Your task to perform on an android device: turn on location history Image 0: 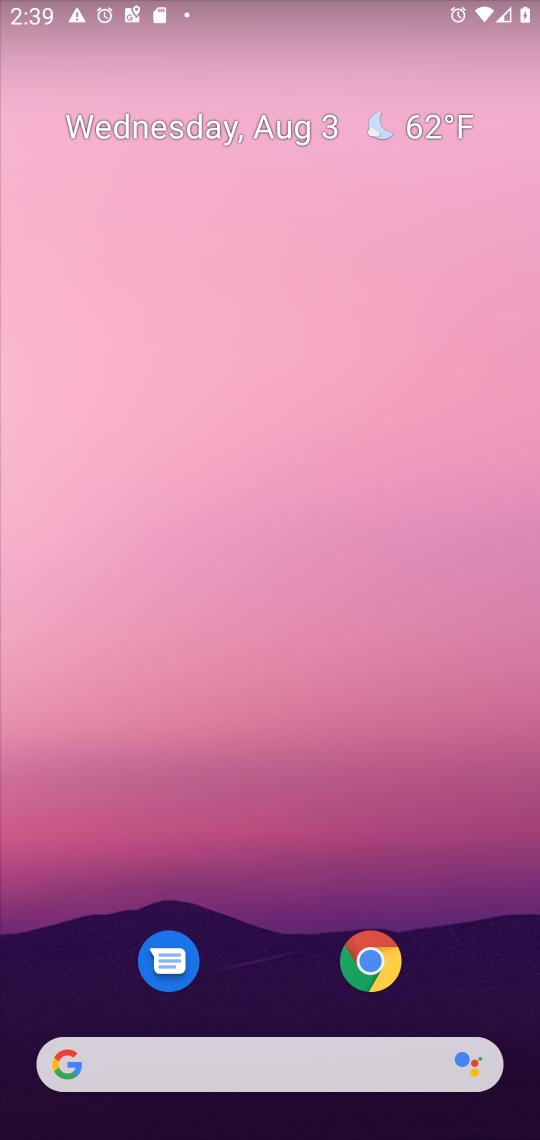
Step 0: drag from (269, 913) to (319, 70)
Your task to perform on an android device: turn on location history Image 1: 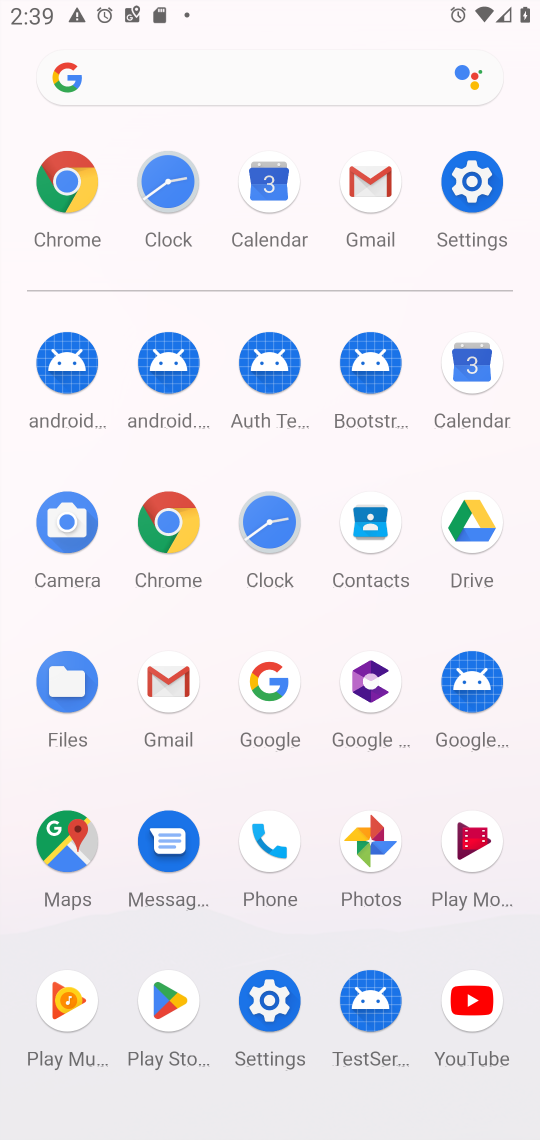
Step 1: click (69, 831)
Your task to perform on an android device: turn on location history Image 2: 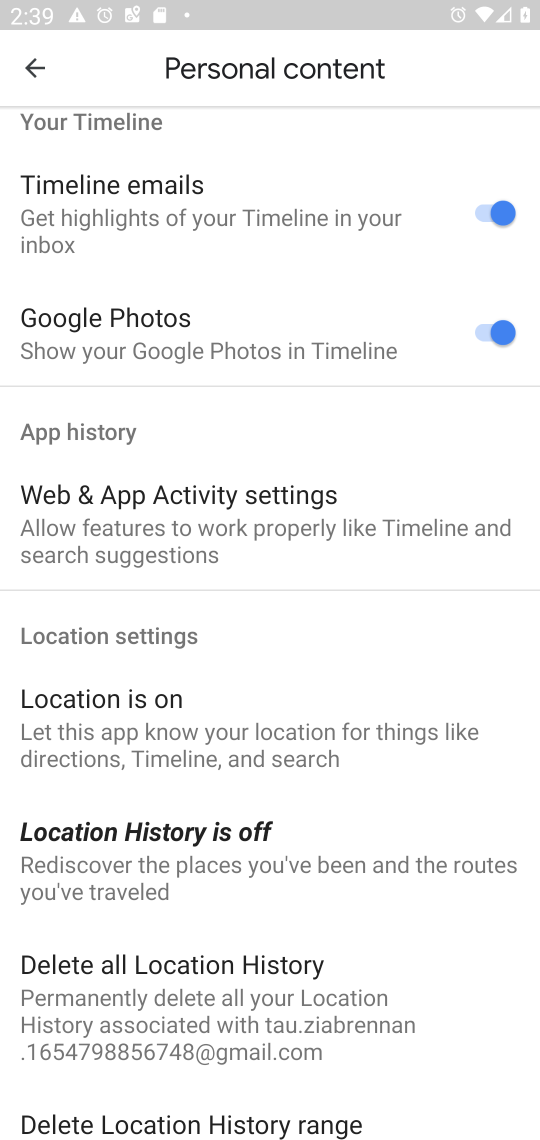
Step 2: click (144, 843)
Your task to perform on an android device: turn on location history Image 3: 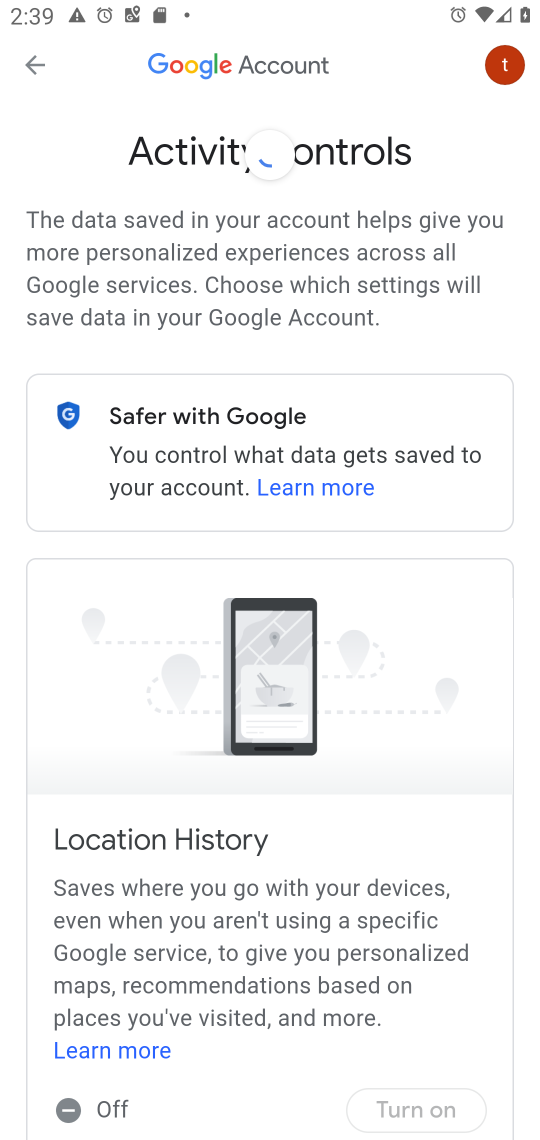
Step 3: drag from (356, 985) to (365, 497)
Your task to perform on an android device: turn on location history Image 4: 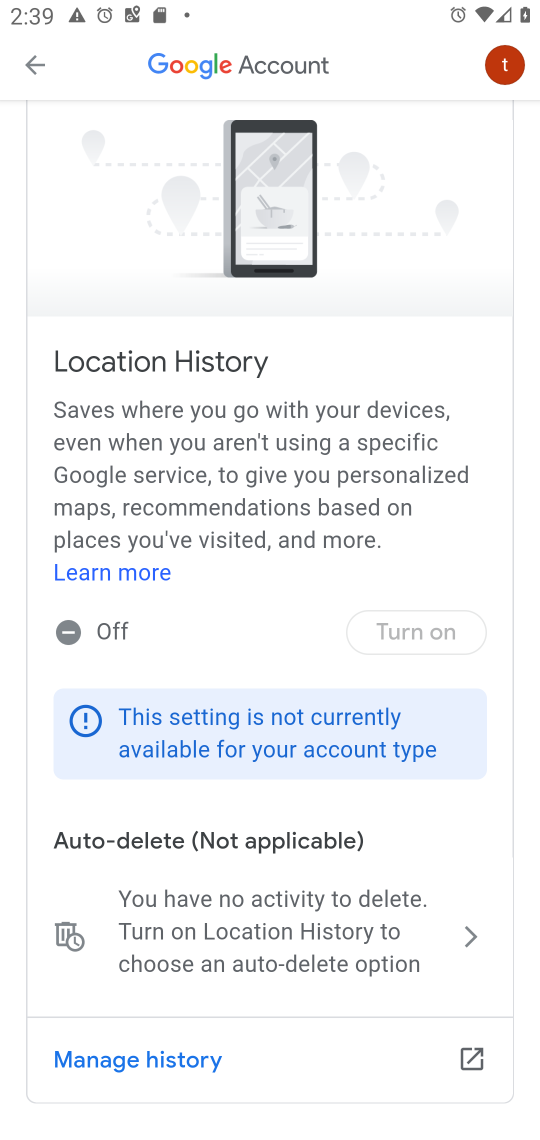
Step 4: click (416, 630)
Your task to perform on an android device: turn on location history Image 5: 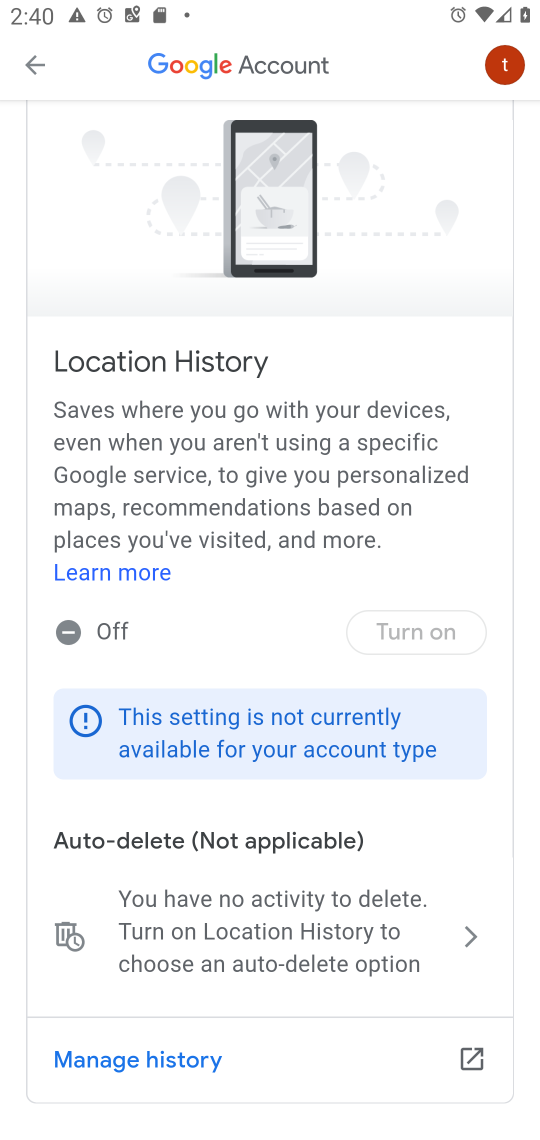
Step 5: task complete